Your task to perform on an android device: Go to sound settings Image 0: 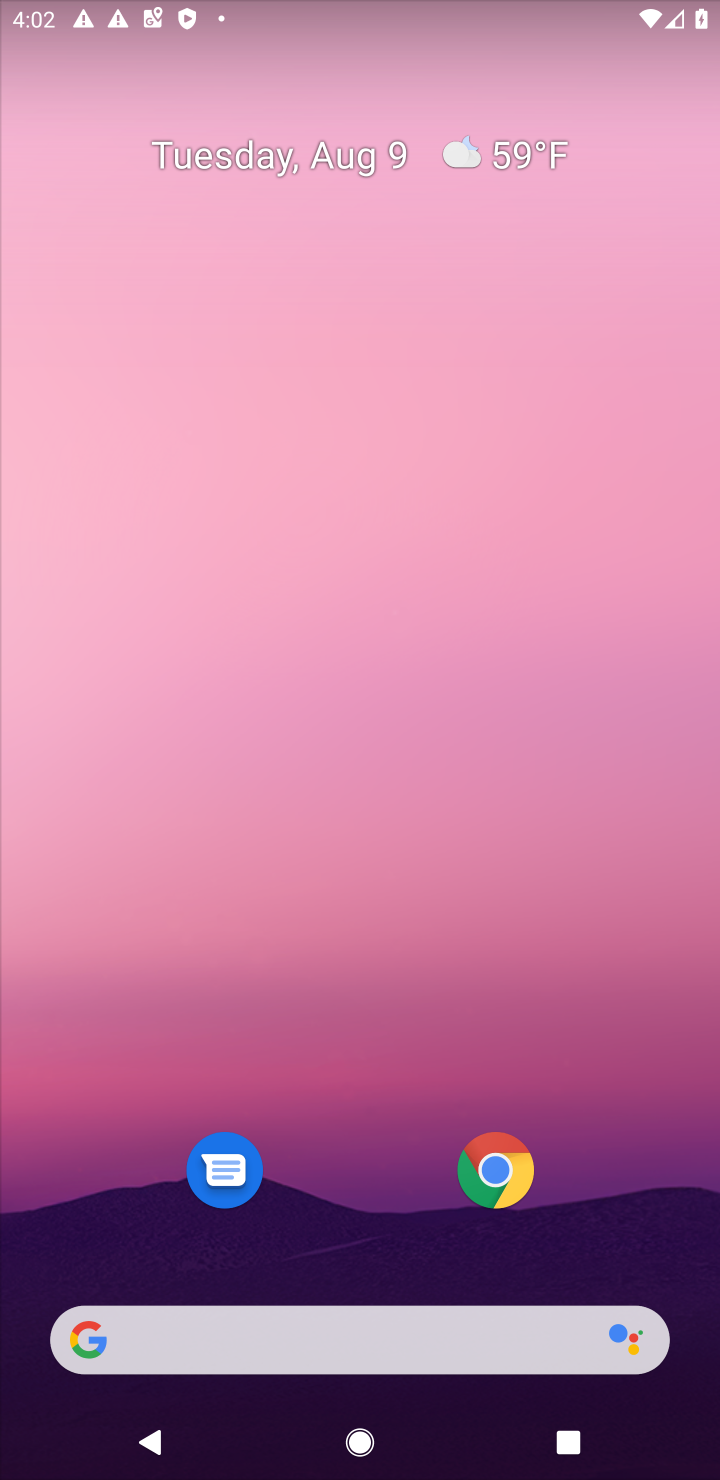
Step 0: press home button
Your task to perform on an android device: Go to sound settings Image 1: 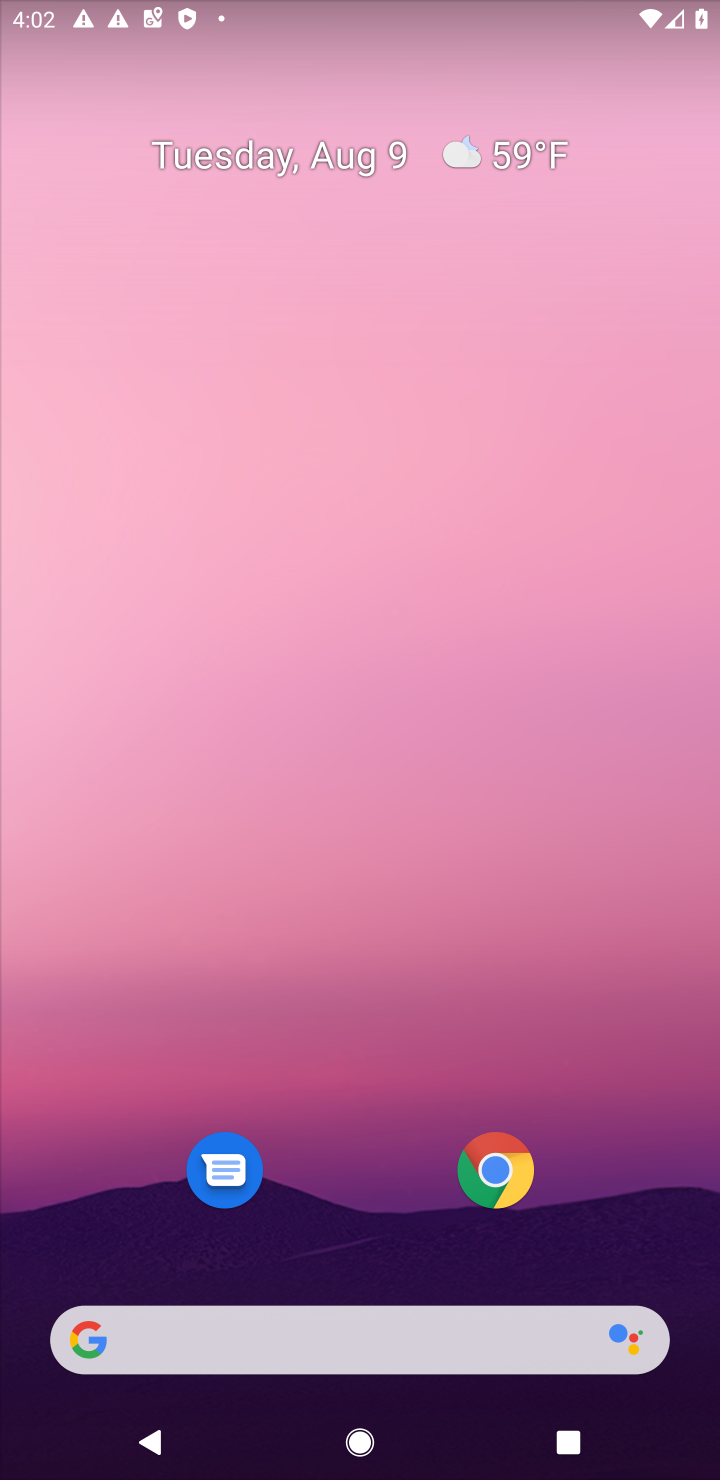
Step 1: drag from (368, 1259) to (304, 231)
Your task to perform on an android device: Go to sound settings Image 2: 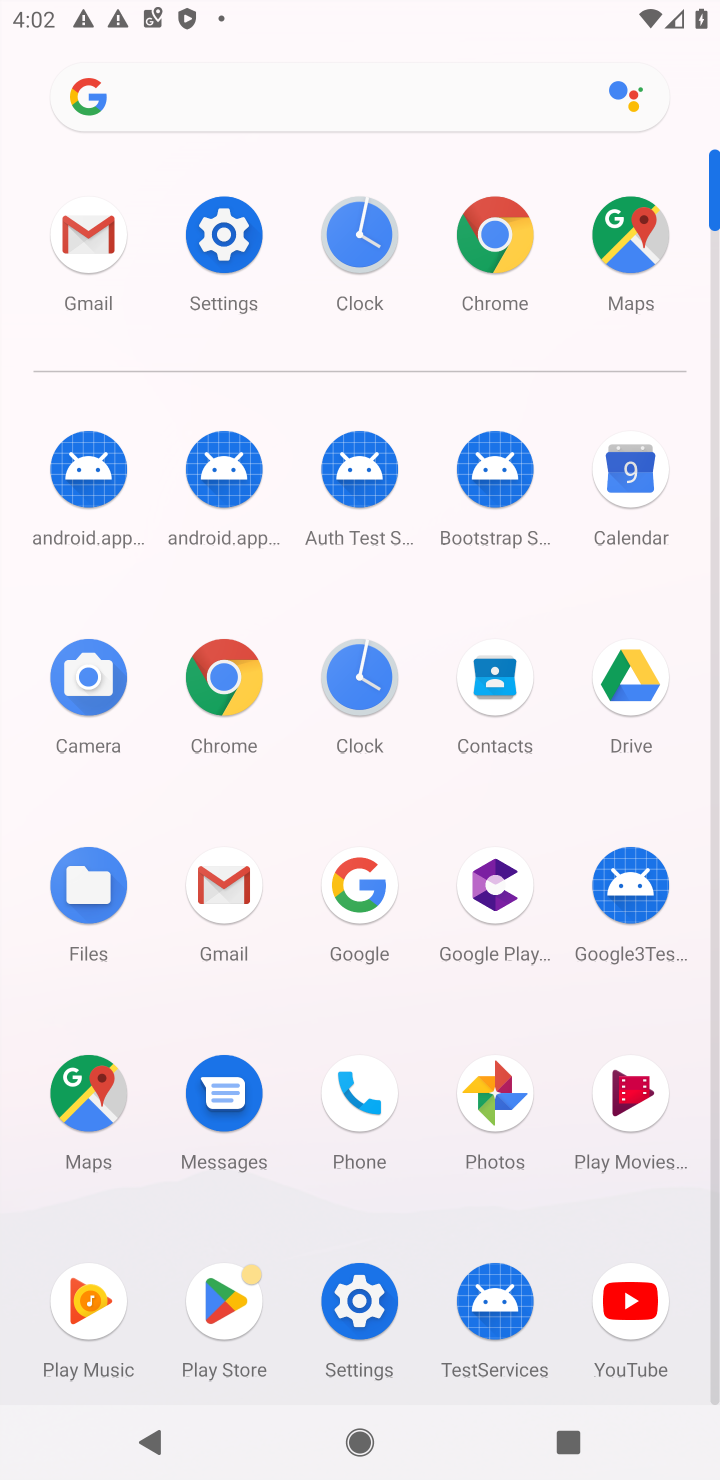
Step 2: click (217, 235)
Your task to perform on an android device: Go to sound settings Image 3: 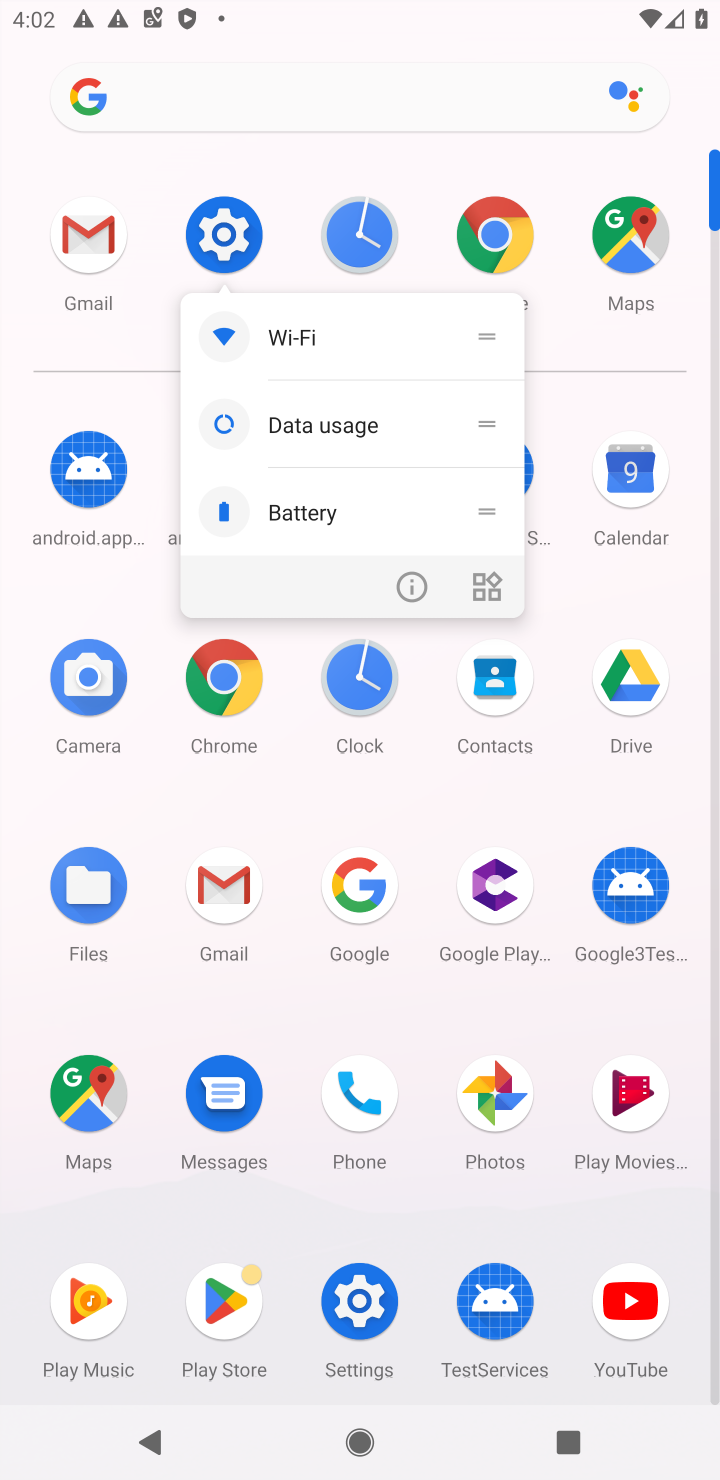
Step 3: click (222, 206)
Your task to perform on an android device: Go to sound settings Image 4: 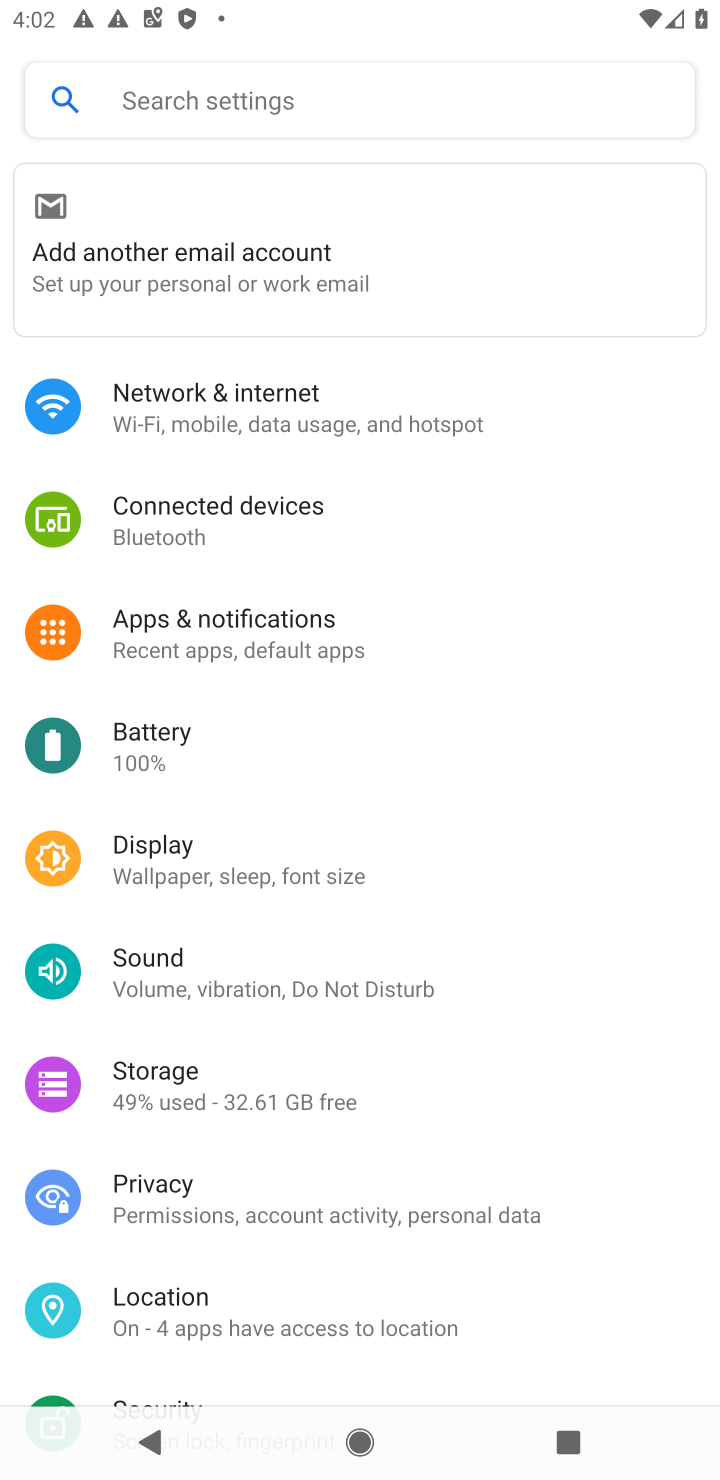
Step 4: click (157, 974)
Your task to perform on an android device: Go to sound settings Image 5: 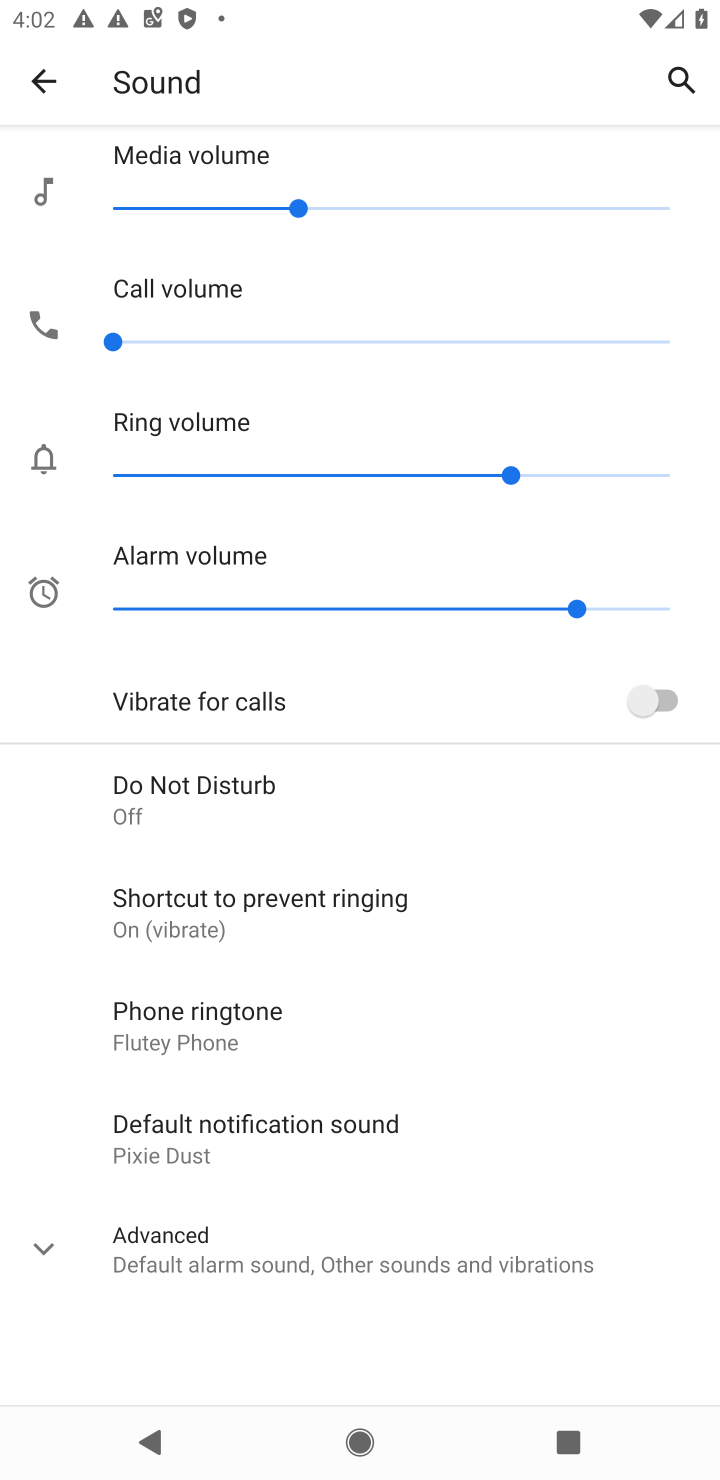
Step 5: task complete